Your task to perform on an android device: turn vacation reply on in the gmail app Image 0: 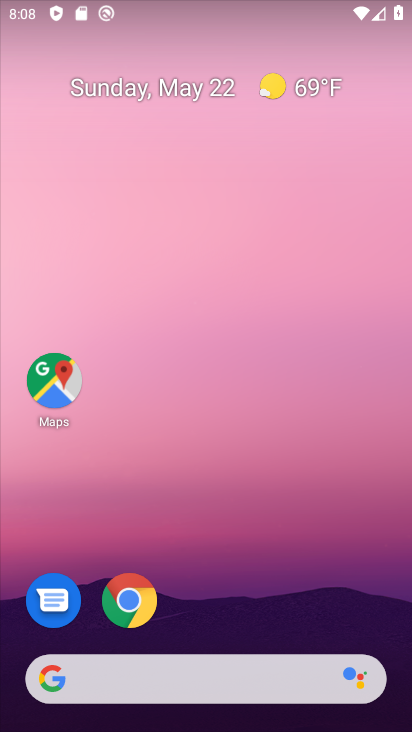
Step 0: drag from (244, 603) to (211, 135)
Your task to perform on an android device: turn vacation reply on in the gmail app Image 1: 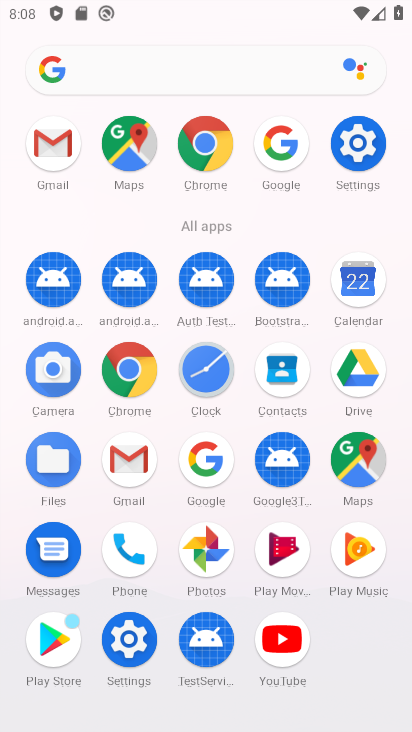
Step 1: click (133, 465)
Your task to perform on an android device: turn vacation reply on in the gmail app Image 2: 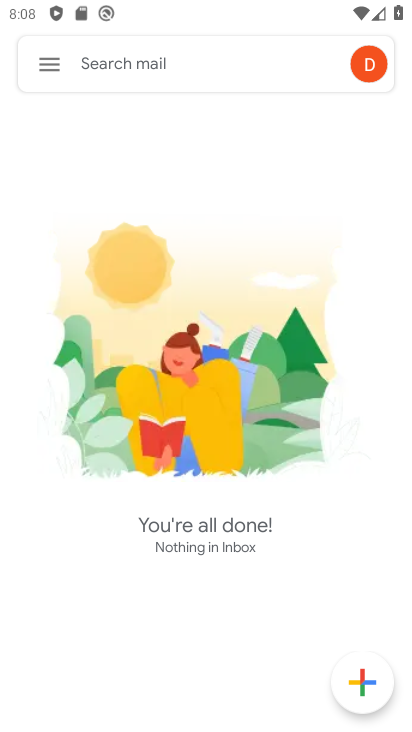
Step 2: click (50, 81)
Your task to perform on an android device: turn vacation reply on in the gmail app Image 3: 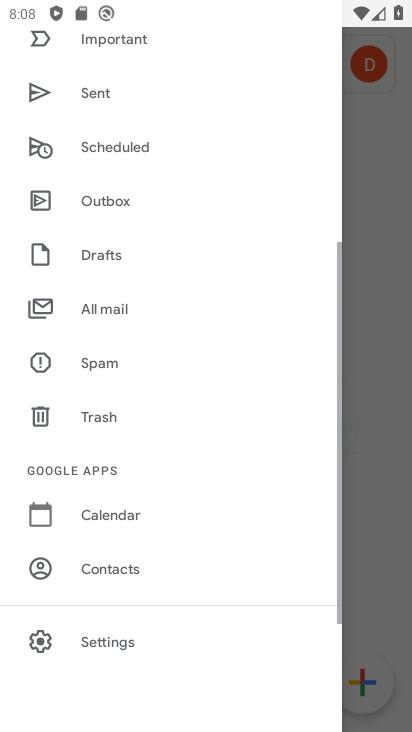
Step 3: click (114, 646)
Your task to perform on an android device: turn vacation reply on in the gmail app Image 4: 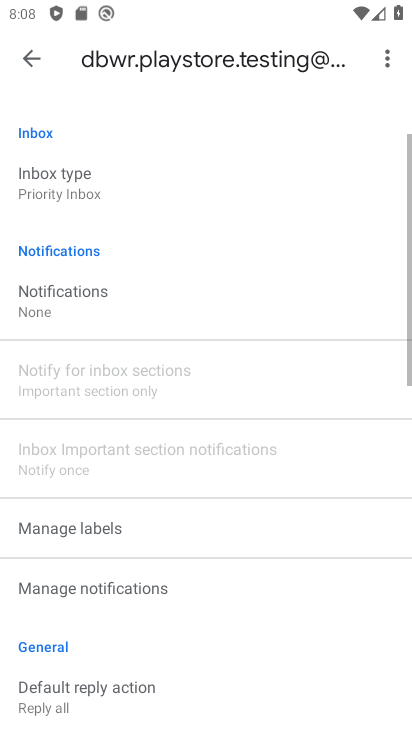
Step 4: drag from (125, 655) to (142, 204)
Your task to perform on an android device: turn vacation reply on in the gmail app Image 5: 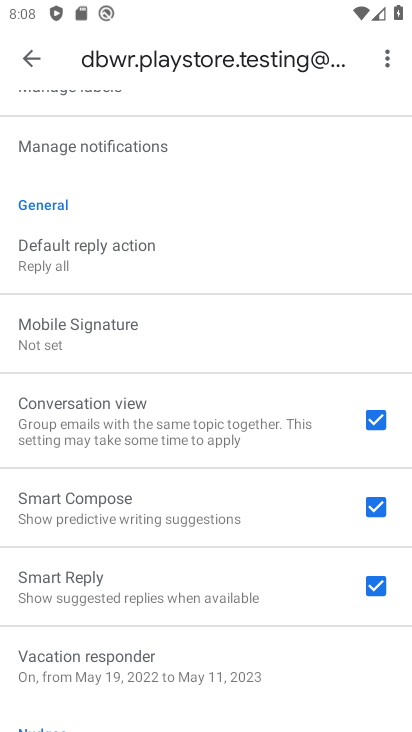
Step 5: click (89, 662)
Your task to perform on an android device: turn vacation reply on in the gmail app Image 6: 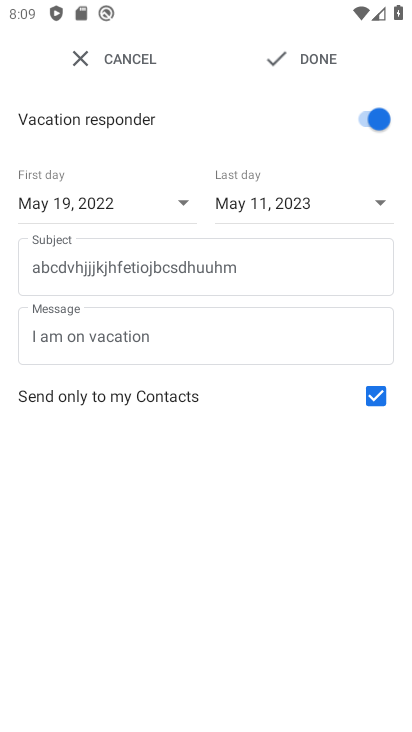
Step 6: task complete